Your task to perform on an android device: snooze an email in the gmail app Image 0: 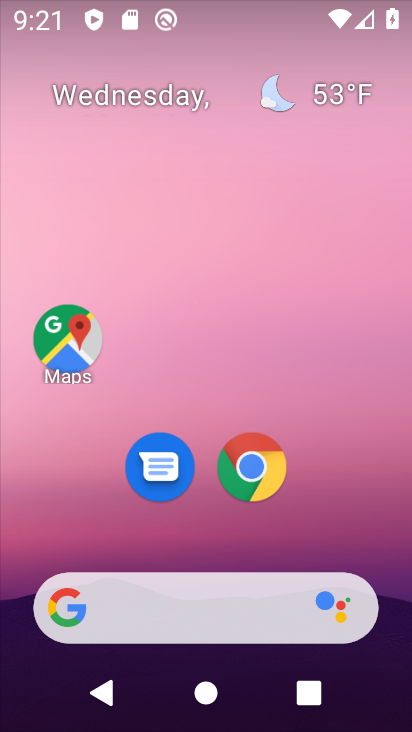
Step 0: press home button
Your task to perform on an android device: snooze an email in the gmail app Image 1: 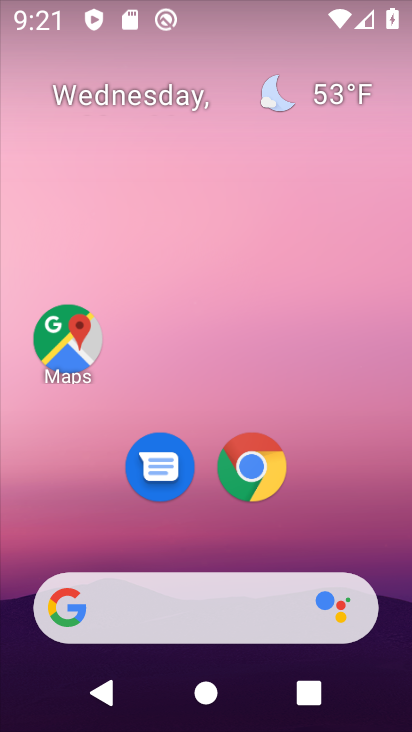
Step 1: drag from (289, 549) to (333, 144)
Your task to perform on an android device: snooze an email in the gmail app Image 2: 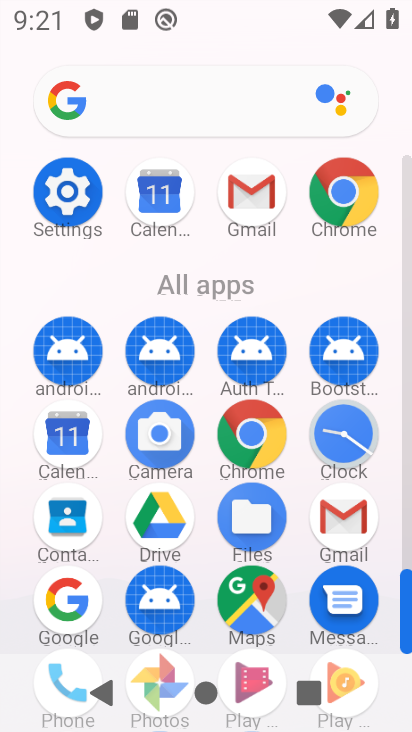
Step 2: click (234, 207)
Your task to perform on an android device: snooze an email in the gmail app Image 3: 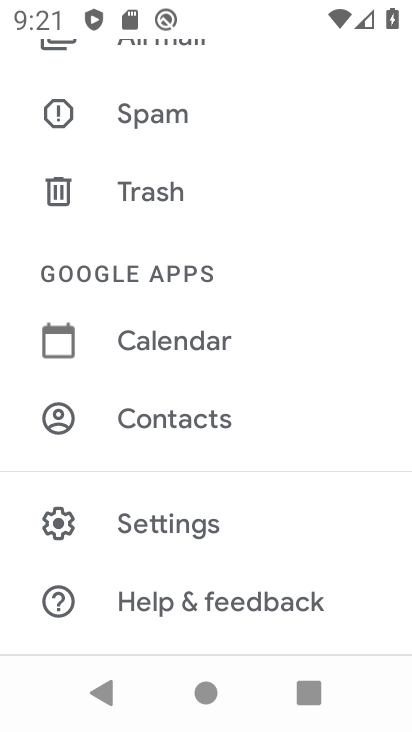
Step 3: task complete